Your task to perform on an android device: toggle data saver in the chrome app Image 0: 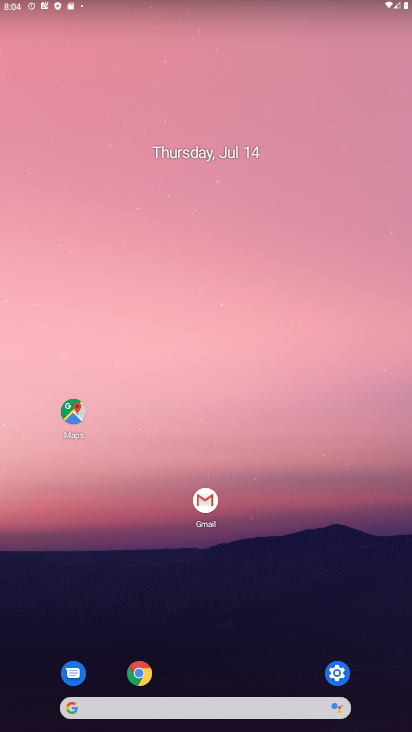
Step 0: click (140, 668)
Your task to perform on an android device: toggle data saver in the chrome app Image 1: 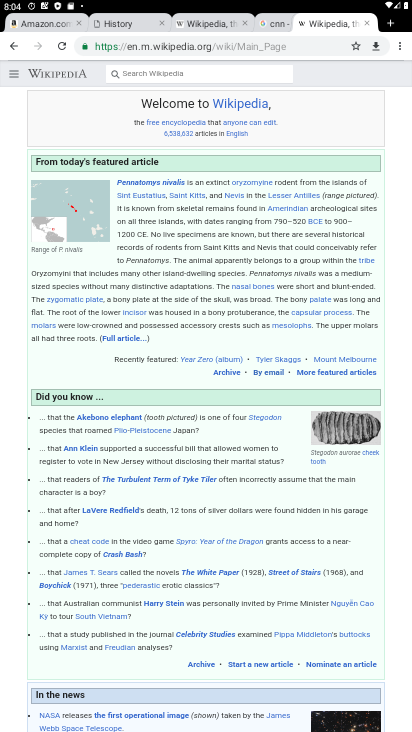
Step 1: click (399, 51)
Your task to perform on an android device: toggle data saver in the chrome app Image 2: 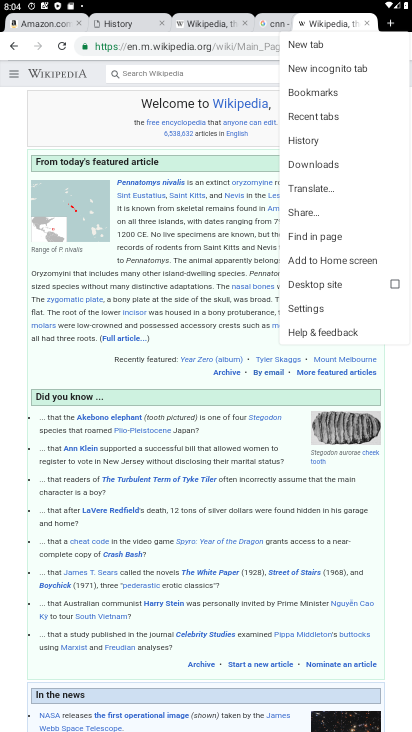
Step 2: click (306, 303)
Your task to perform on an android device: toggle data saver in the chrome app Image 3: 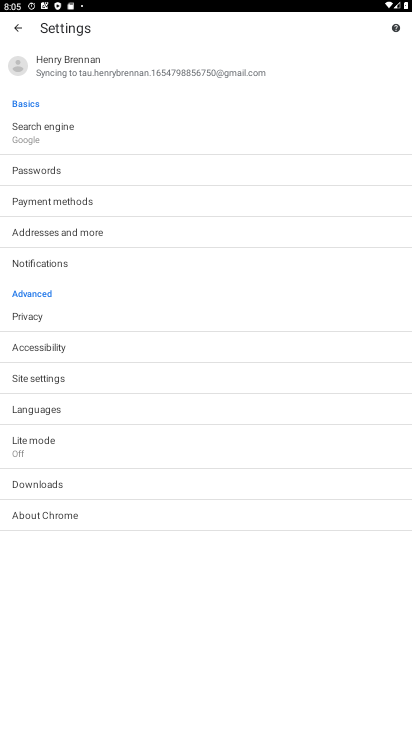
Step 3: click (47, 444)
Your task to perform on an android device: toggle data saver in the chrome app Image 4: 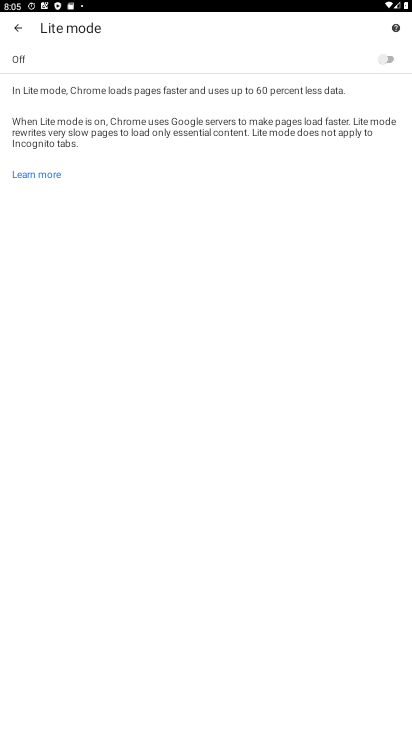
Step 4: task complete